Your task to perform on an android device: Is it going to rain this weekend? Image 0: 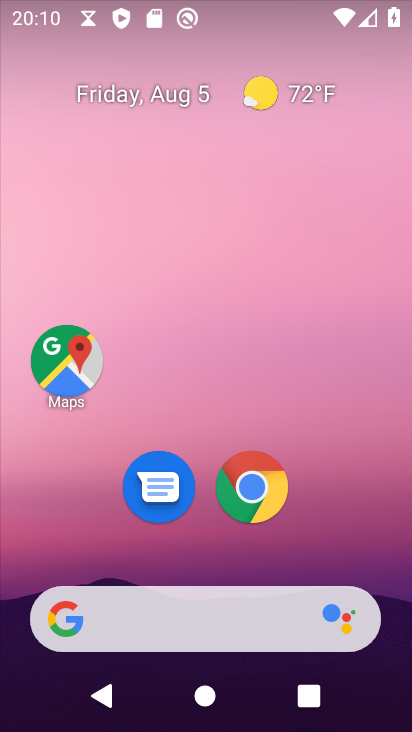
Step 0: press home button
Your task to perform on an android device: Is it going to rain this weekend? Image 1: 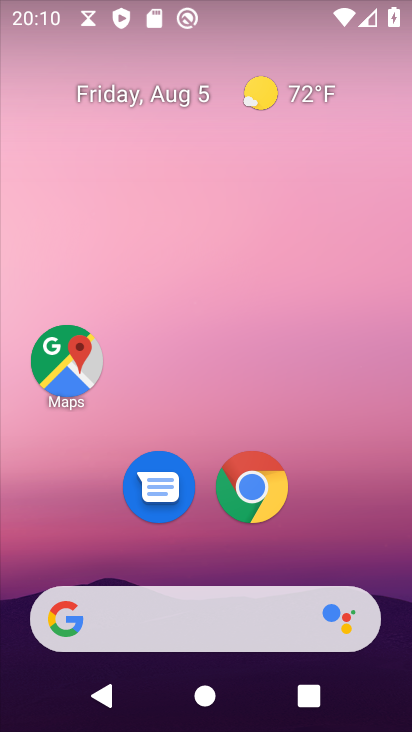
Step 1: click (136, 621)
Your task to perform on an android device: Is it going to rain this weekend? Image 2: 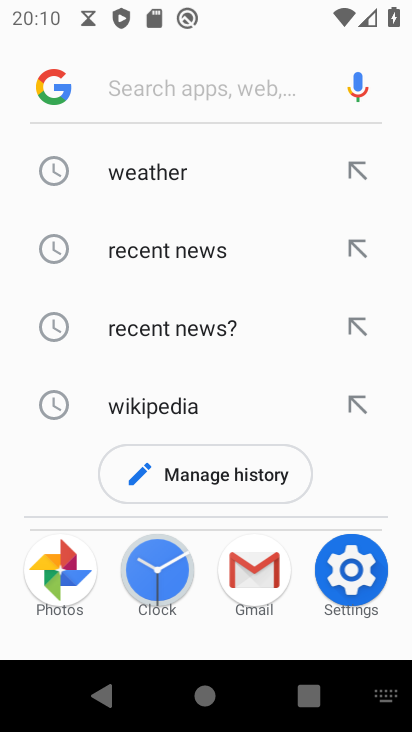
Step 2: click (179, 170)
Your task to perform on an android device: Is it going to rain this weekend? Image 3: 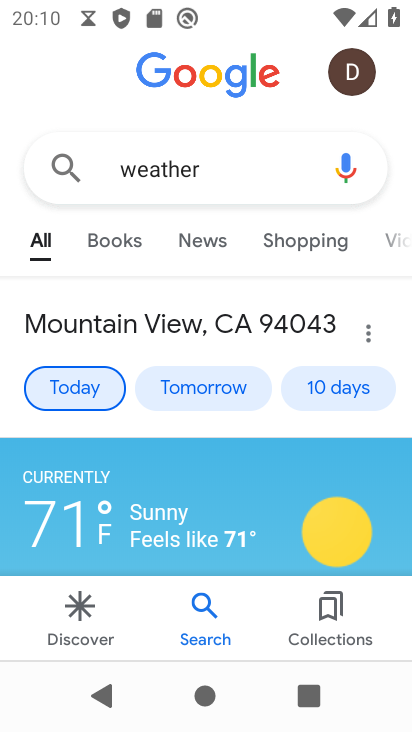
Step 3: click (347, 393)
Your task to perform on an android device: Is it going to rain this weekend? Image 4: 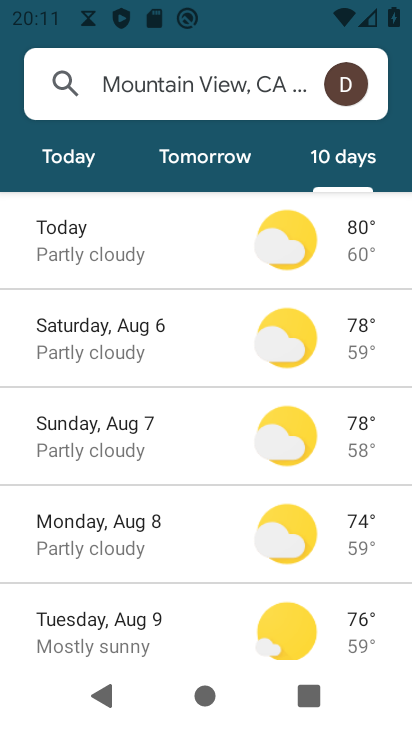
Step 4: click (119, 343)
Your task to perform on an android device: Is it going to rain this weekend? Image 5: 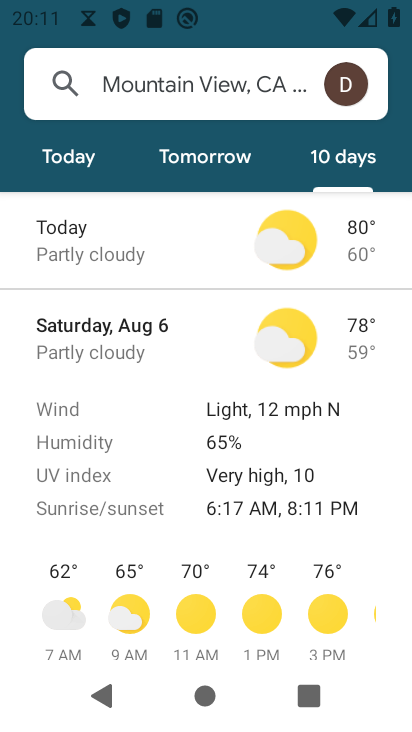
Step 5: task complete